Your task to perform on an android device: Open eBay Image 0: 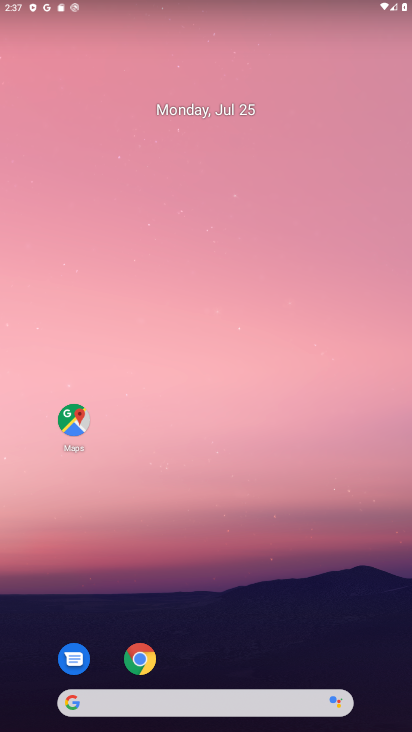
Step 0: drag from (206, 668) to (175, 41)
Your task to perform on an android device: Open eBay Image 1: 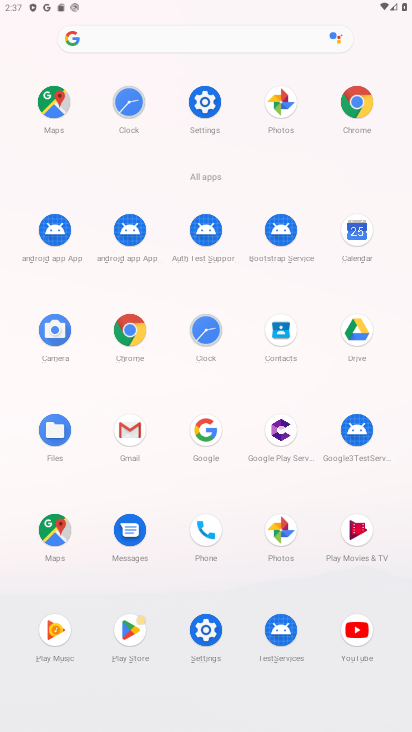
Step 1: click (369, 102)
Your task to perform on an android device: Open eBay Image 2: 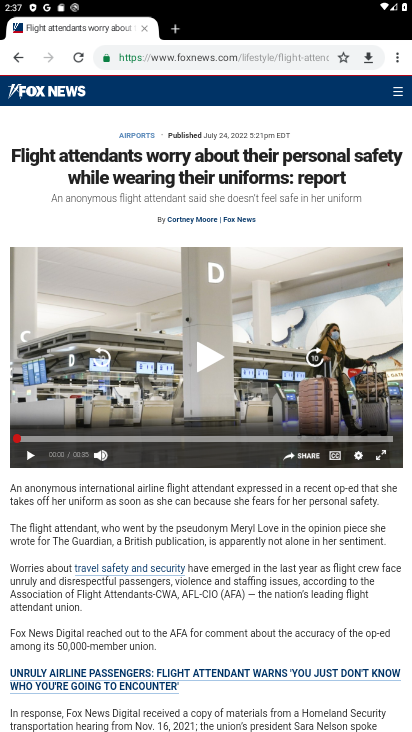
Step 2: click (171, 35)
Your task to perform on an android device: Open eBay Image 3: 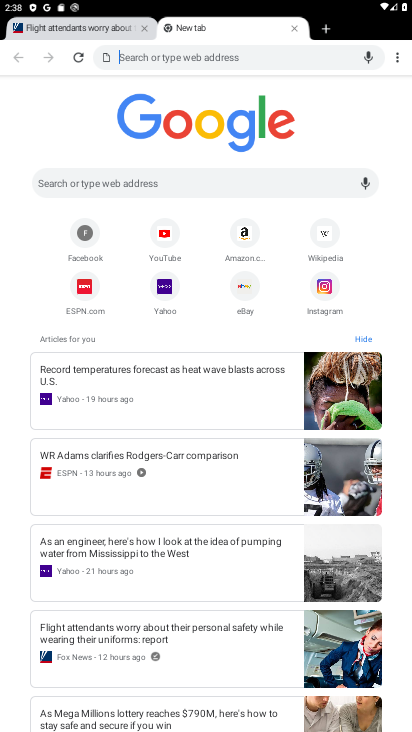
Step 3: click (221, 288)
Your task to perform on an android device: Open eBay Image 4: 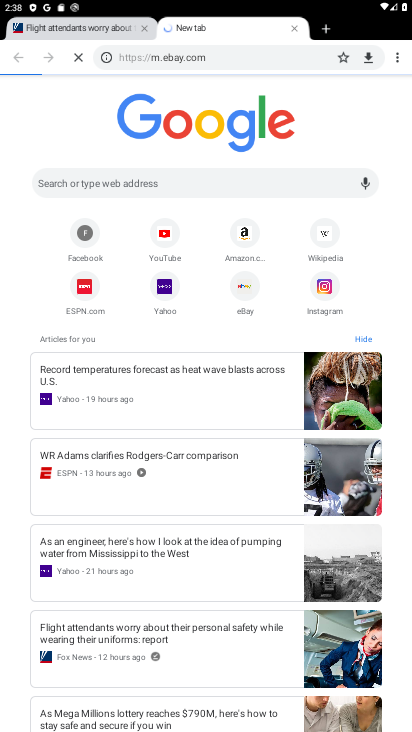
Step 4: click (235, 284)
Your task to perform on an android device: Open eBay Image 5: 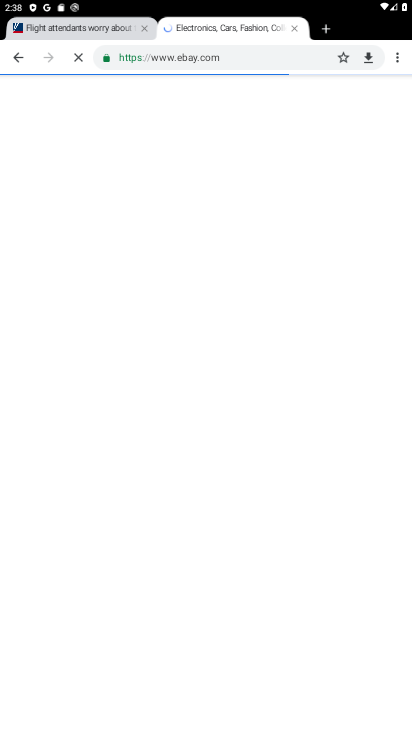
Step 5: task complete